Your task to perform on an android device: check storage Image 0: 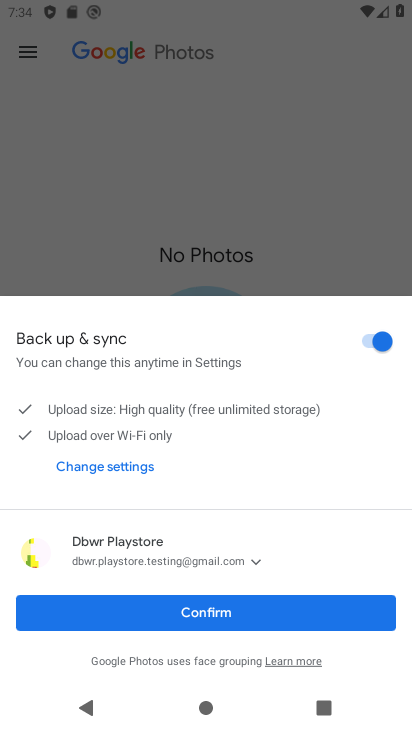
Step 0: press home button
Your task to perform on an android device: check storage Image 1: 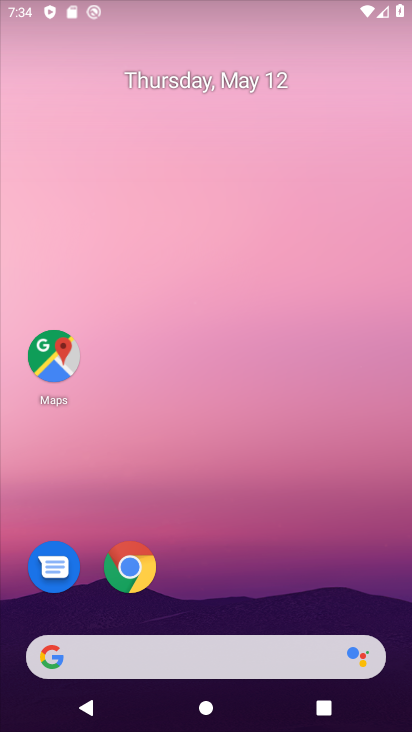
Step 1: drag from (206, 624) to (206, 190)
Your task to perform on an android device: check storage Image 2: 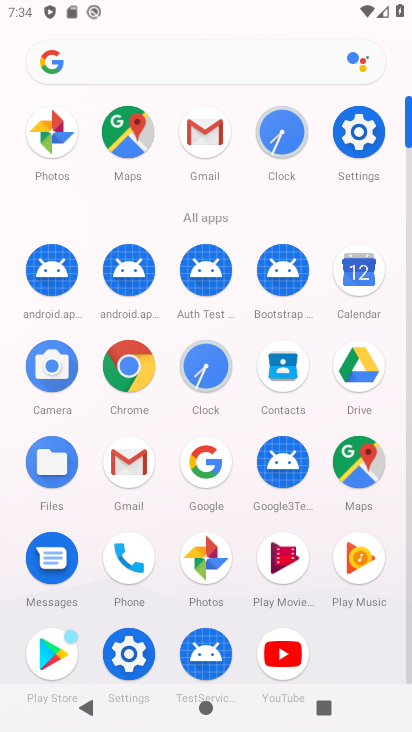
Step 2: click (375, 156)
Your task to perform on an android device: check storage Image 3: 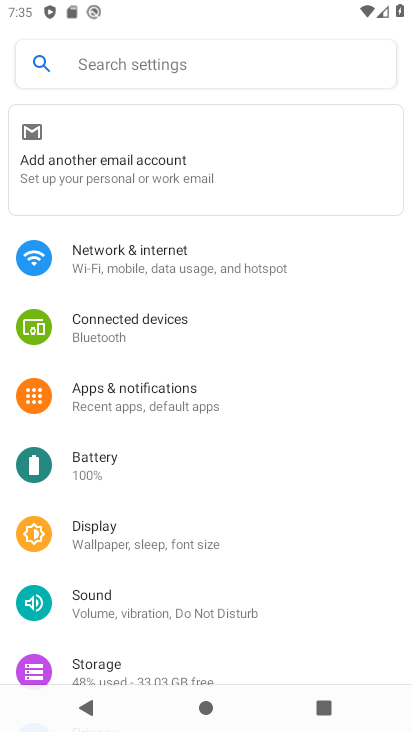
Step 3: drag from (218, 528) to (220, 273)
Your task to perform on an android device: check storage Image 4: 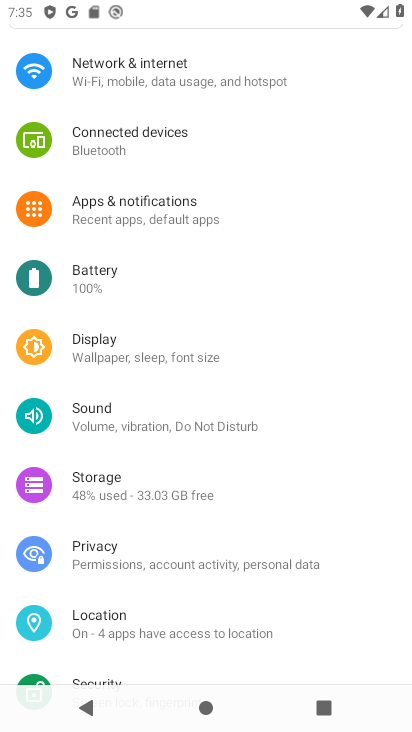
Step 4: drag from (230, 525) to (228, 361)
Your task to perform on an android device: check storage Image 5: 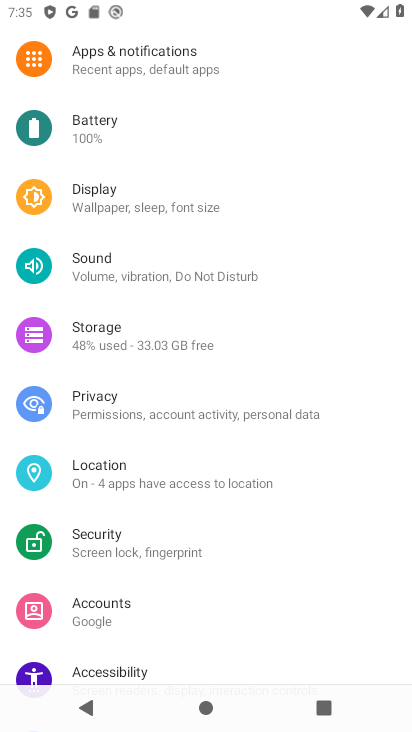
Step 5: click (139, 344)
Your task to perform on an android device: check storage Image 6: 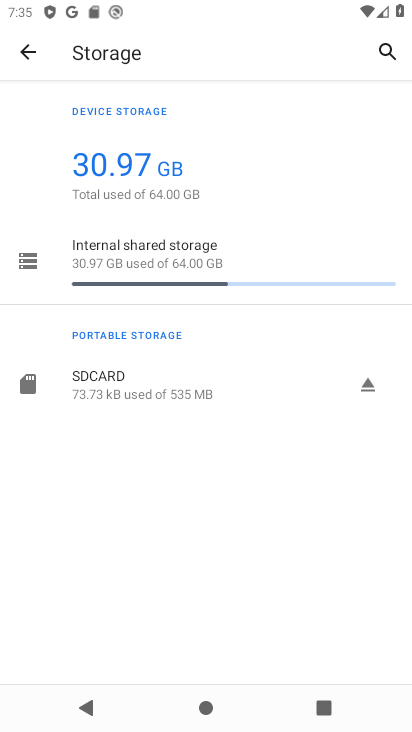
Step 6: click (185, 275)
Your task to perform on an android device: check storage Image 7: 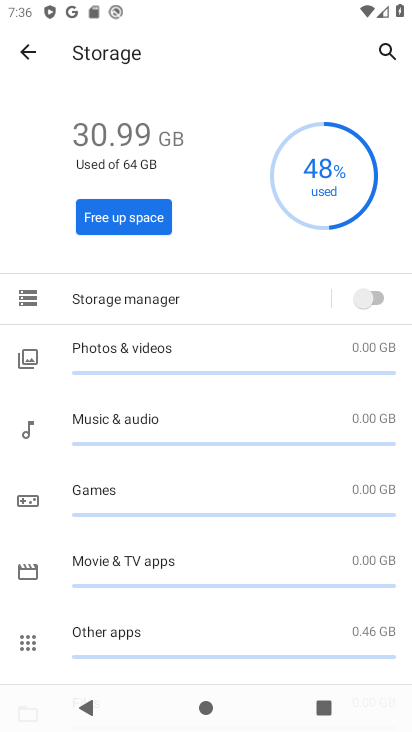
Step 7: task complete